Your task to perform on an android device: Open calendar and show me the fourth week of next month Image 0: 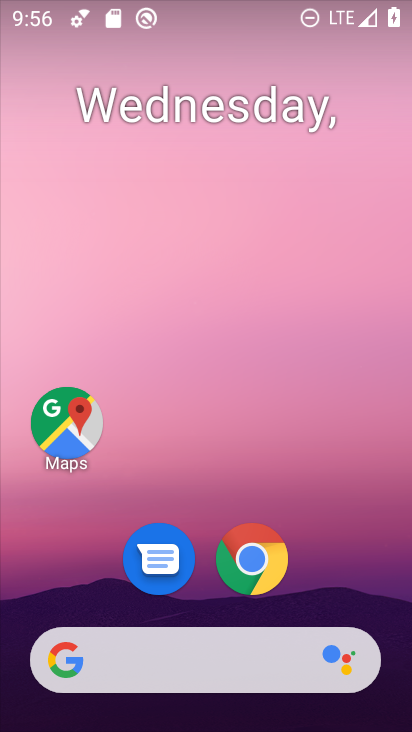
Step 0: drag from (228, 449) to (192, 92)
Your task to perform on an android device: Open calendar and show me the fourth week of next month Image 1: 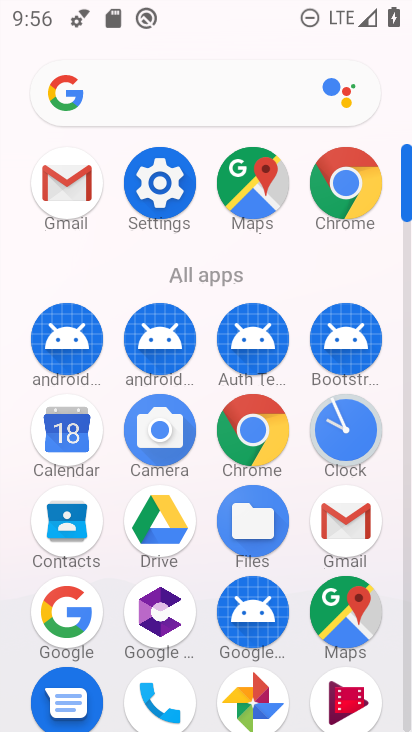
Step 1: click (74, 429)
Your task to perform on an android device: Open calendar and show me the fourth week of next month Image 2: 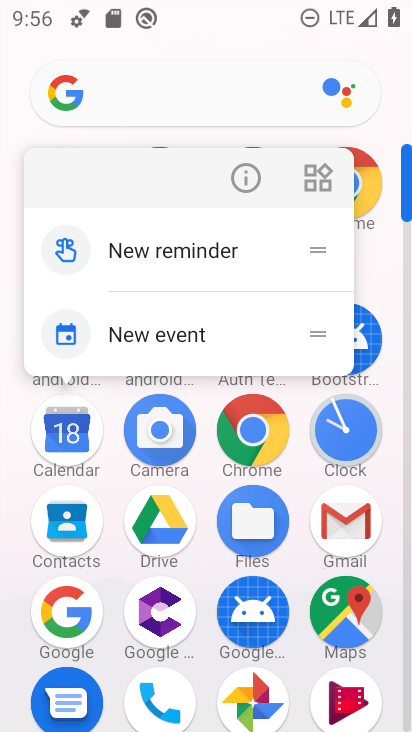
Step 2: click (74, 430)
Your task to perform on an android device: Open calendar and show me the fourth week of next month Image 3: 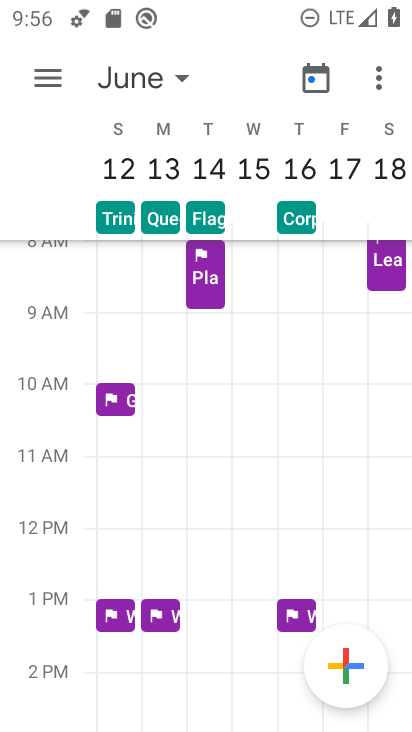
Step 3: task complete